Your task to perform on an android device: check battery use Image 0: 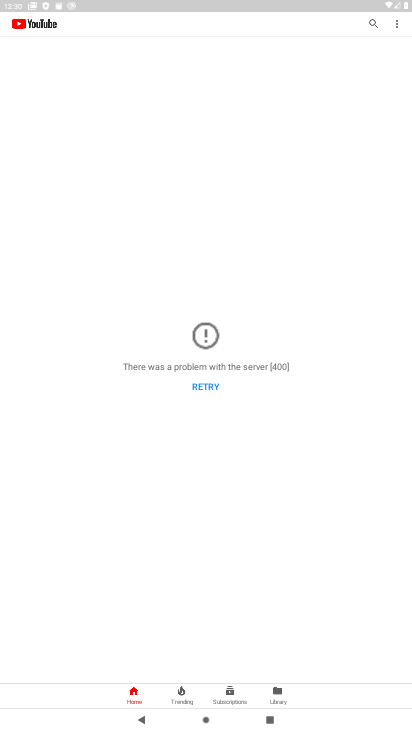
Step 0: press back button
Your task to perform on an android device: check battery use Image 1: 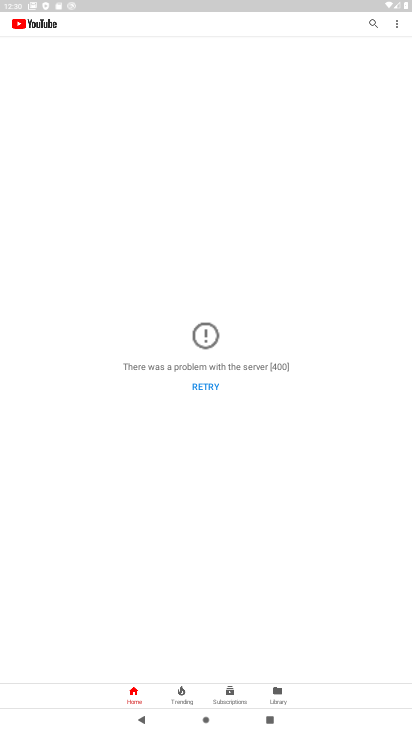
Step 1: press back button
Your task to perform on an android device: check battery use Image 2: 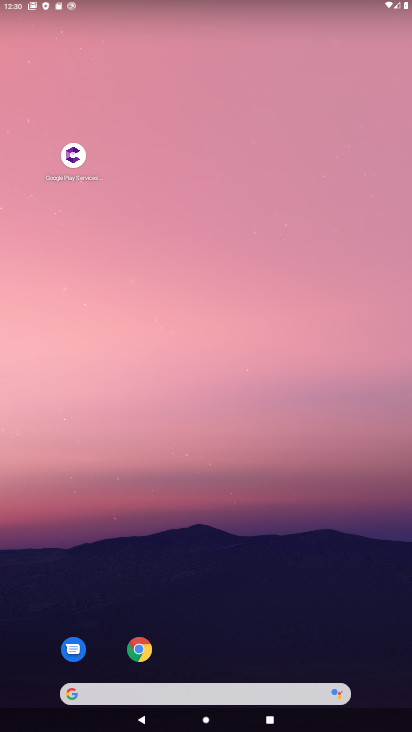
Step 2: drag from (255, 590) to (160, 110)
Your task to perform on an android device: check battery use Image 3: 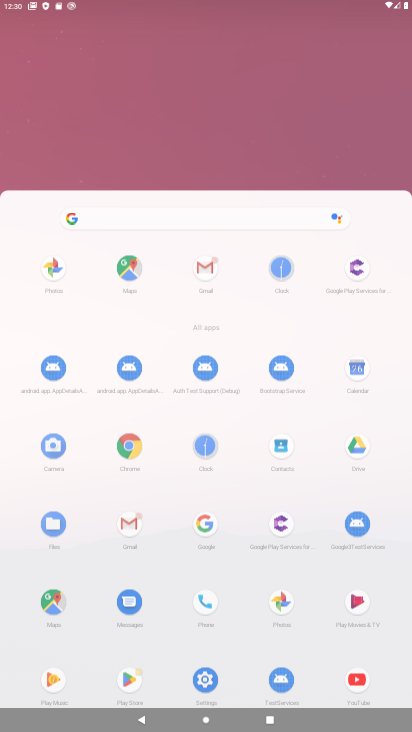
Step 3: drag from (171, 494) to (115, 65)
Your task to perform on an android device: check battery use Image 4: 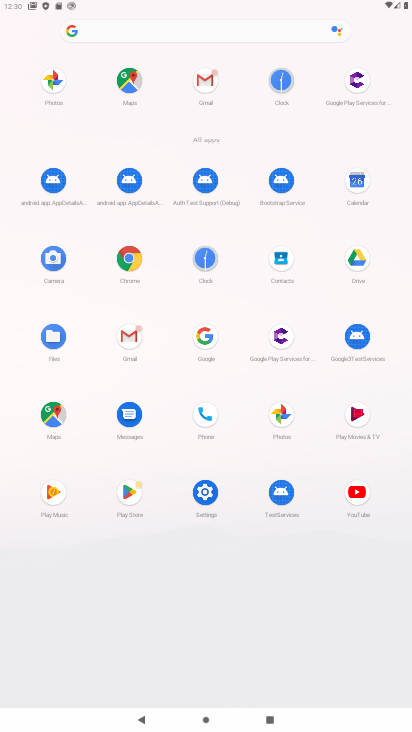
Step 4: click (265, 158)
Your task to perform on an android device: check battery use Image 5: 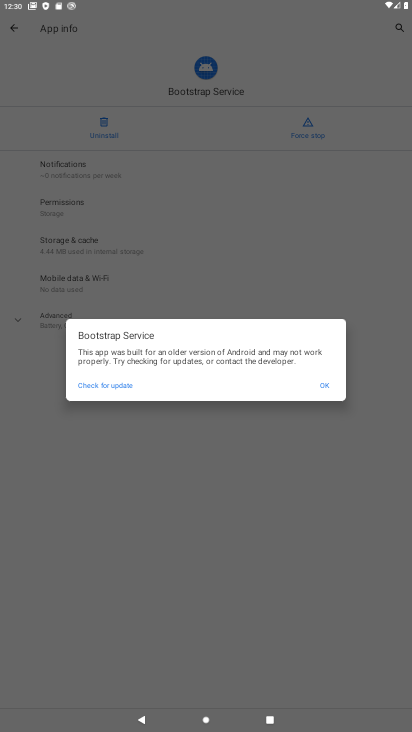
Step 5: click (323, 383)
Your task to perform on an android device: check battery use Image 6: 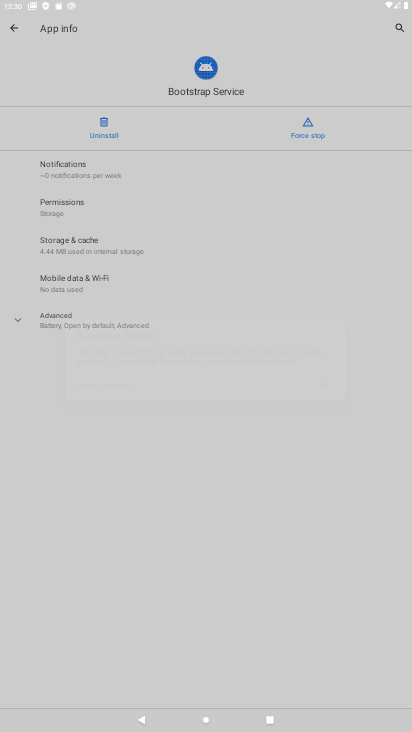
Step 6: click (323, 383)
Your task to perform on an android device: check battery use Image 7: 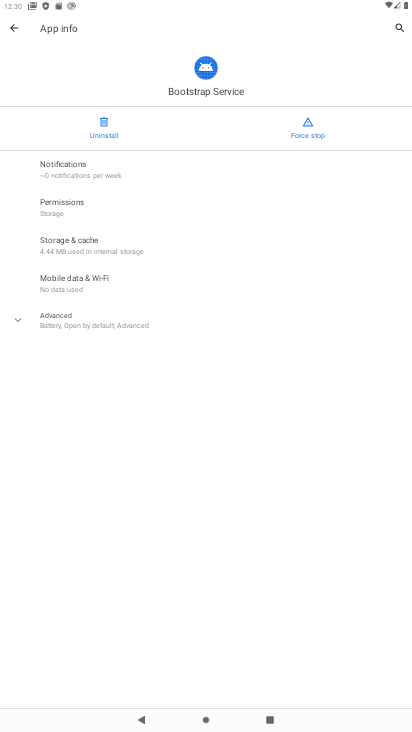
Step 7: click (17, 27)
Your task to perform on an android device: check battery use Image 8: 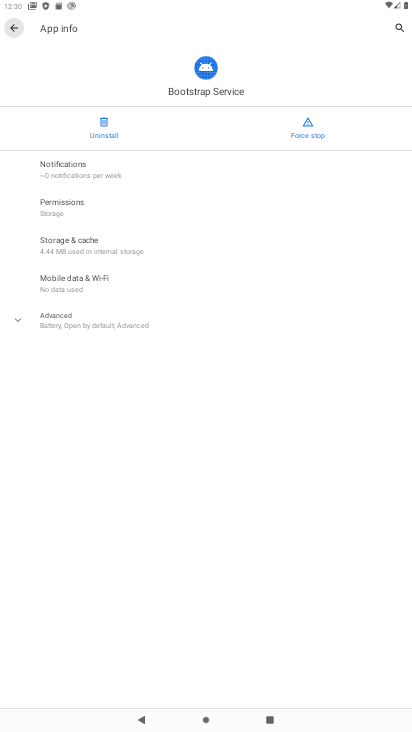
Step 8: click (8, 4)
Your task to perform on an android device: check battery use Image 9: 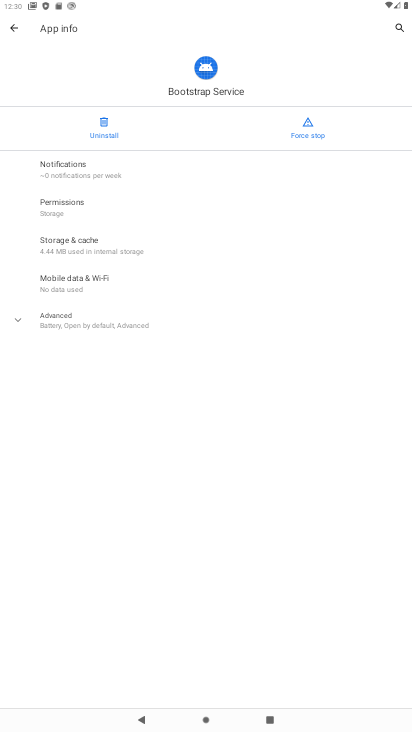
Step 9: click (7, 4)
Your task to perform on an android device: check battery use Image 10: 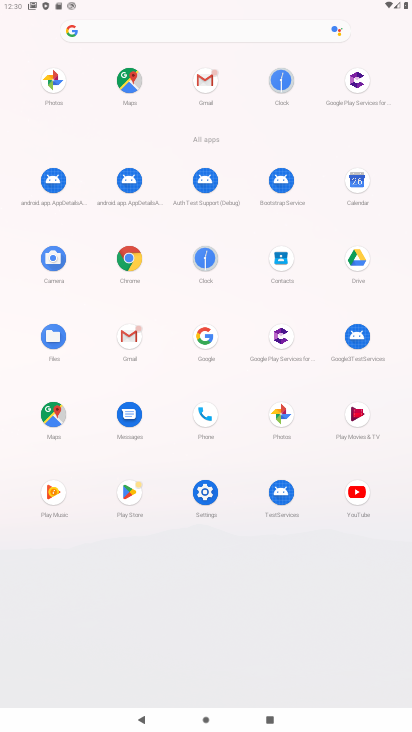
Step 10: click (207, 498)
Your task to perform on an android device: check battery use Image 11: 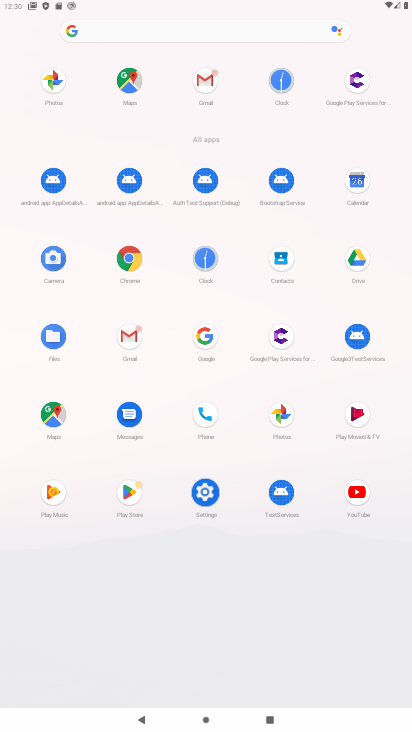
Step 11: click (207, 498)
Your task to perform on an android device: check battery use Image 12: 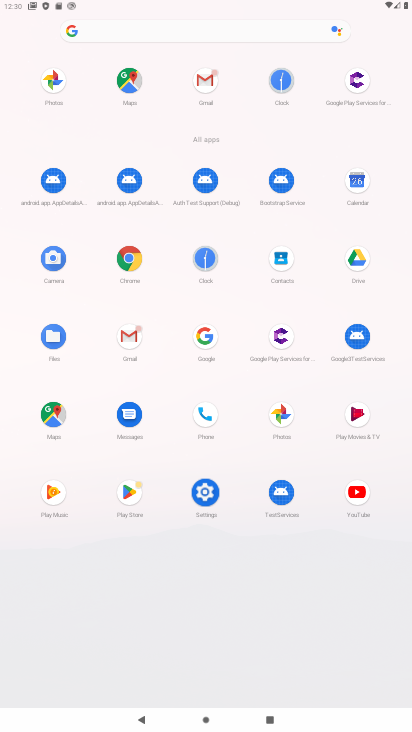
Step 12: click (207, 498)
Your task to perform on an android device: check battery use Image 13: 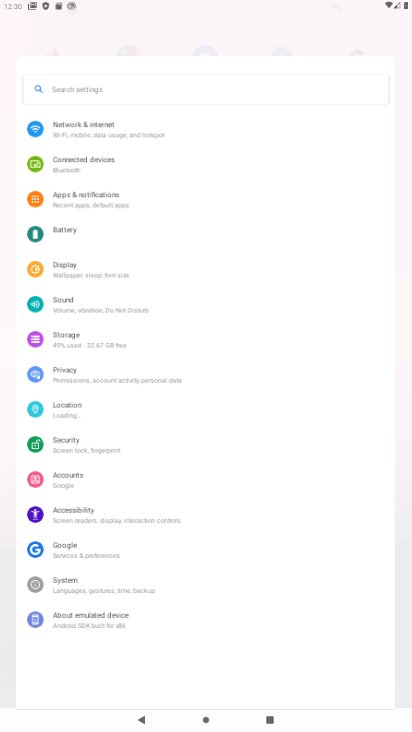
Step 13: click (206, 499)
Your task to perform on an android device: check battery use Image 14: 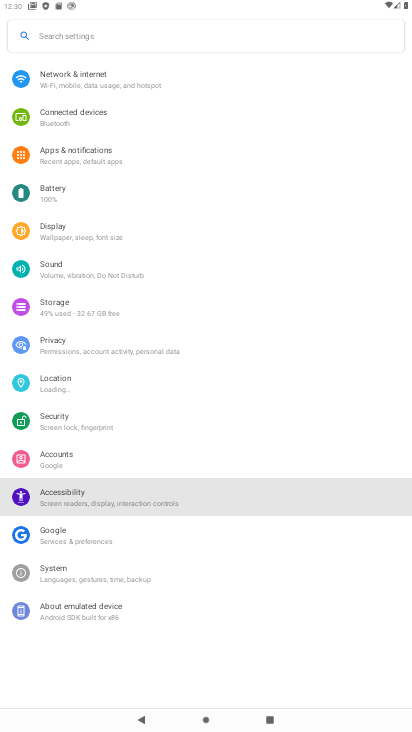
Step 14: click (204, 501)
Your task to perform on an android device: check battery use Image 15: 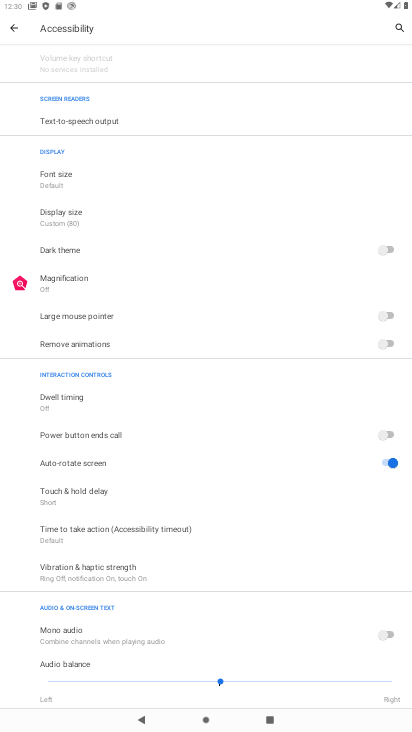
Step 15: click (15, 25)
Your task to perform on an android device: check battery use Image 16: 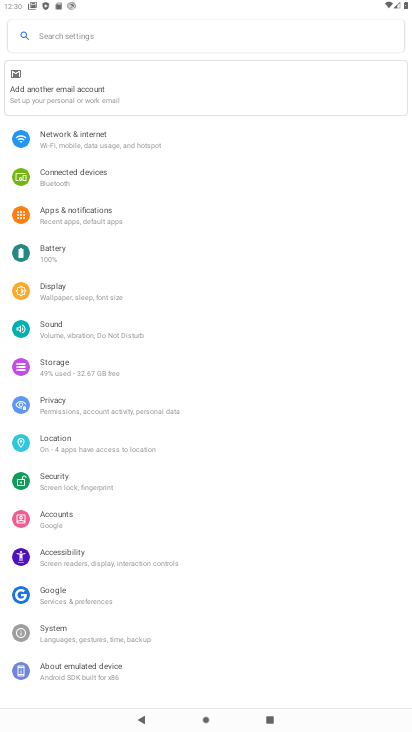
Step 16: click (48, 246)
Your task to perform on an android device: check battery use Image 17: 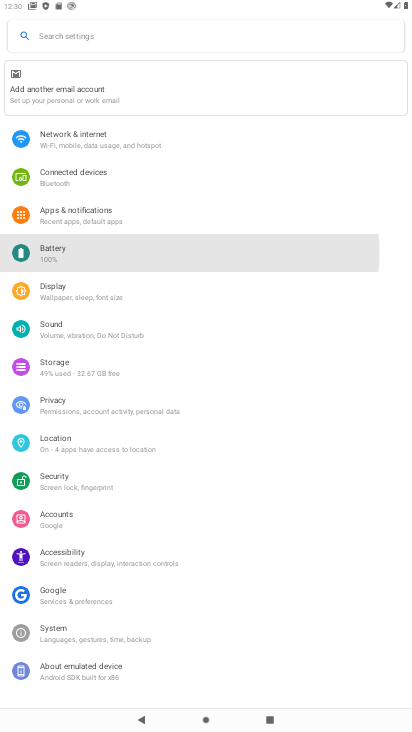
Step 17: click (55, 247)
Your task to perform on an android device: check battery use Image 18: 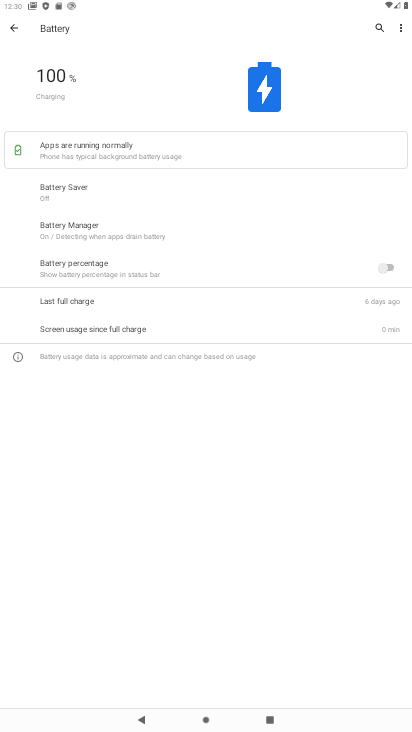
Step 18: task complete